Your task to perform on an android device: Open Wikipedia Image 0: 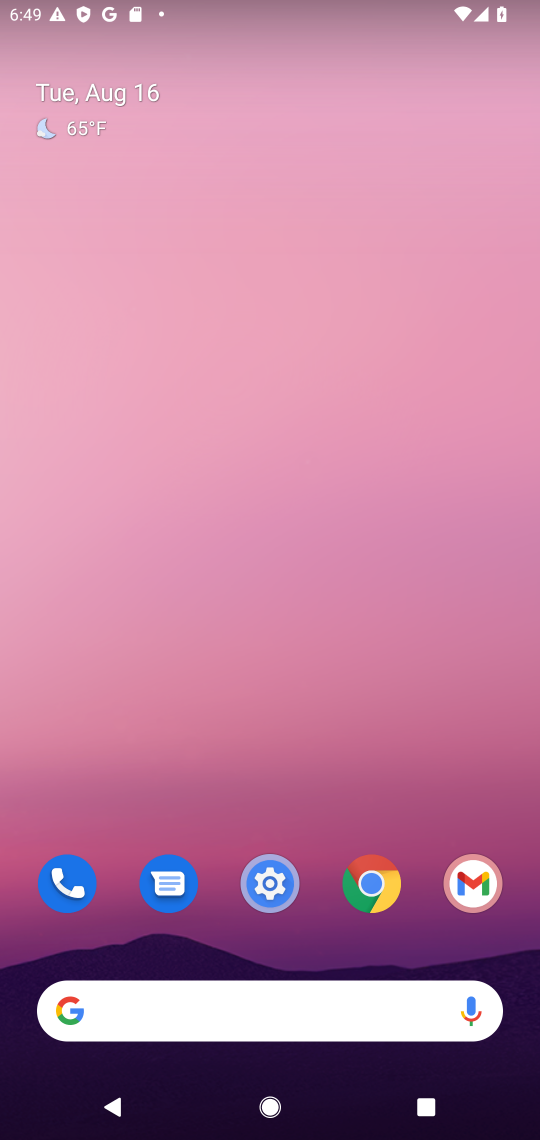
Step 0: drag from (272, 1007) to (282, 261)
Your task to perform on an android device: Open Wikipedia Image 1: 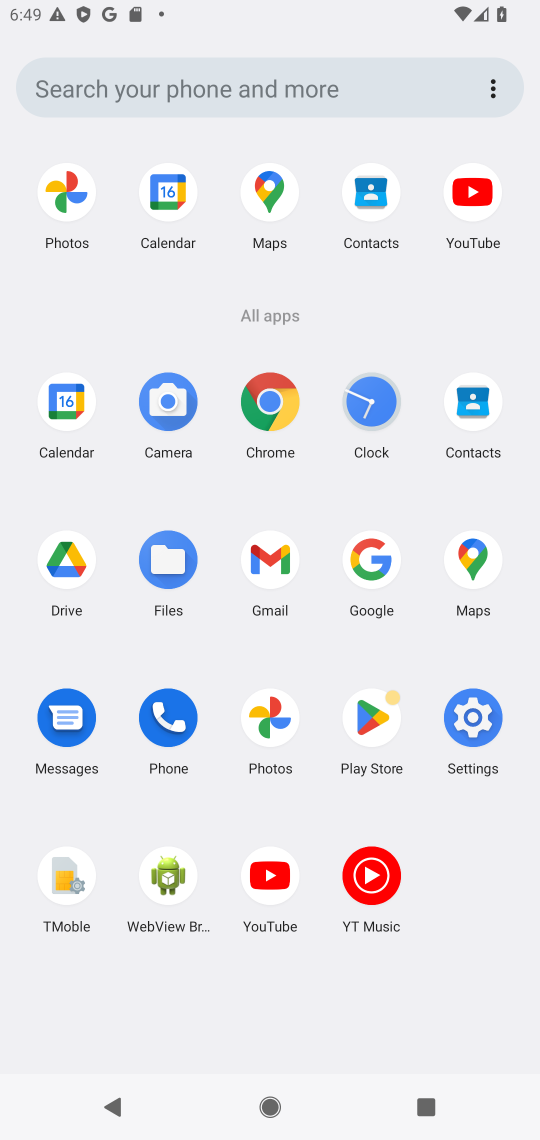
Step 1: click (270, 405)
Your task to perform on an android device: Open Wikipedia Image 2: 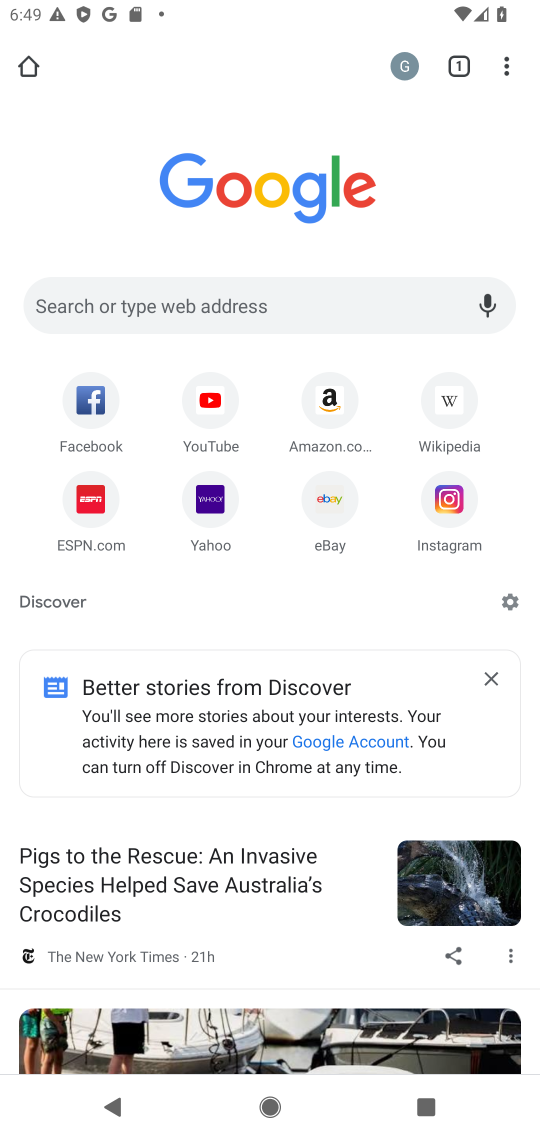
Step 2: click (450, 395)
Your task to perform on an android device: Open Wikipedia Image 3: 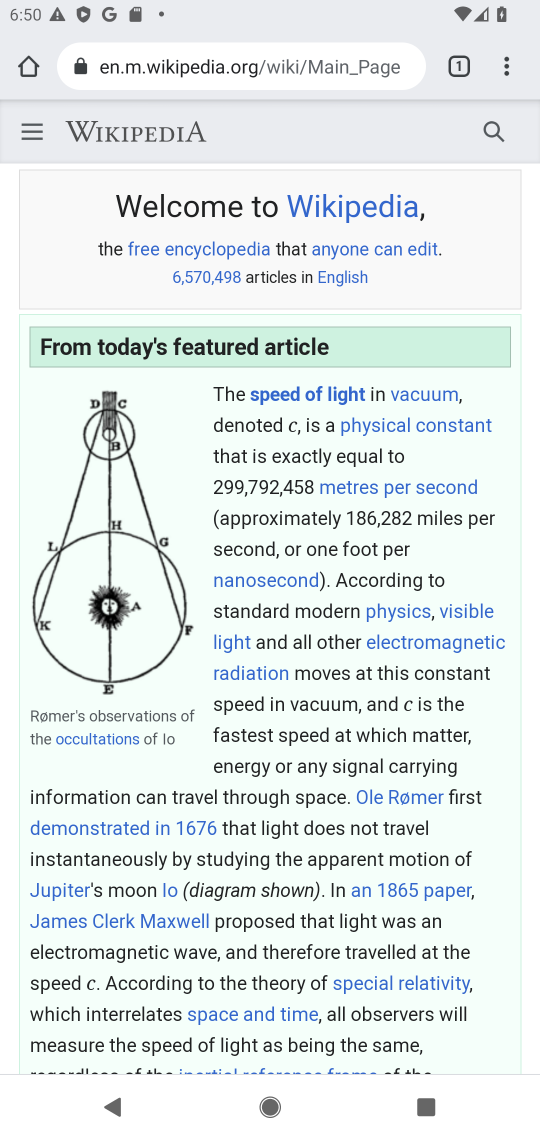
Step 3: task complete